Your task to perform on an android device: change your default location settings in chrome Image 0: 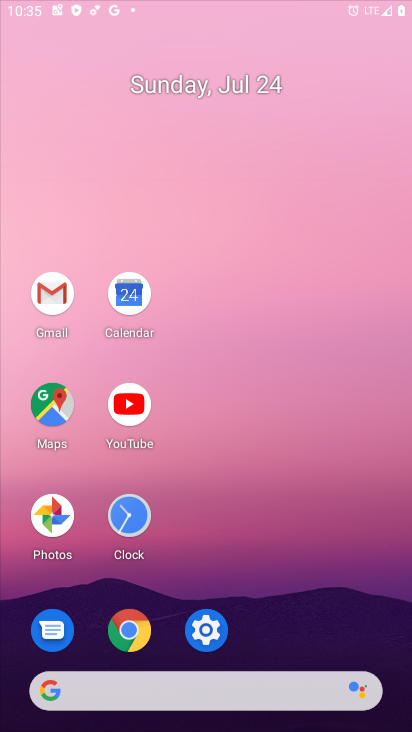
Step 0: click (204, 636)
Your task to perform on an android device: change your default location settings in chrome Image 1: 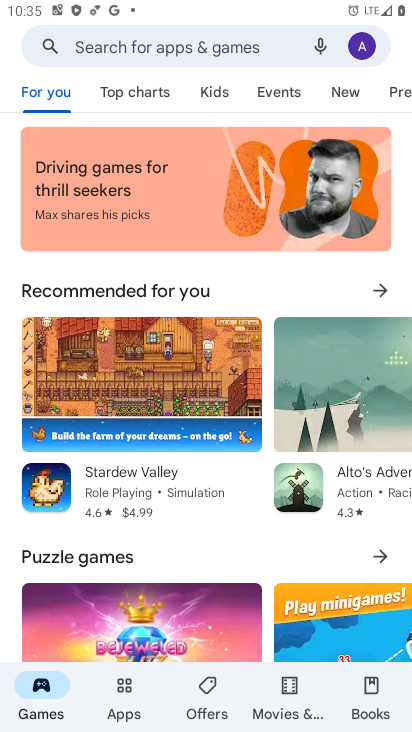
Step 1: press home button
Your task to perform on an android device: change your default location settings in chrome Image 2: 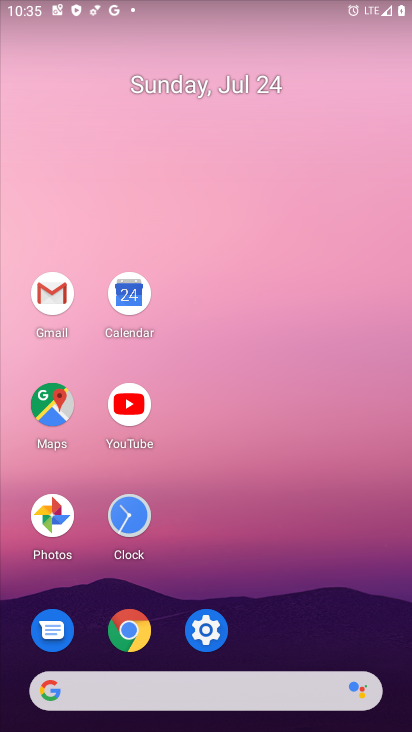
Step 2: click (126, 631)
Your task to perform on an android device: change your default location settings in chrome Image 3: 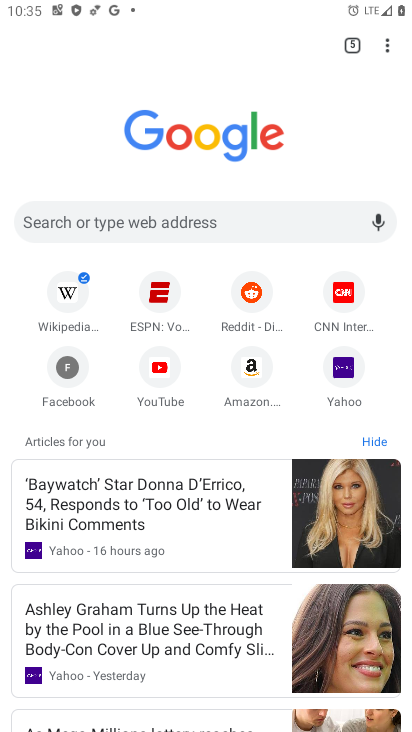
Step 3: click (385, 42)
Your task to perform on an android device: change your default location settings in chrome Image 4: 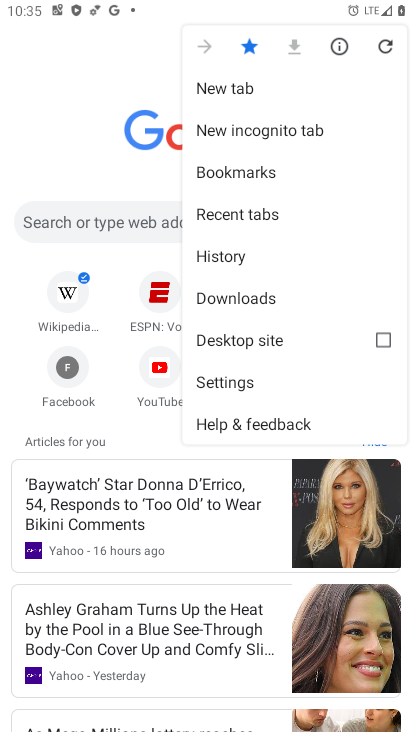
Step 4: click (223, 379)
Your task to perform on an android device: change your default location settings in chrome Image 5: 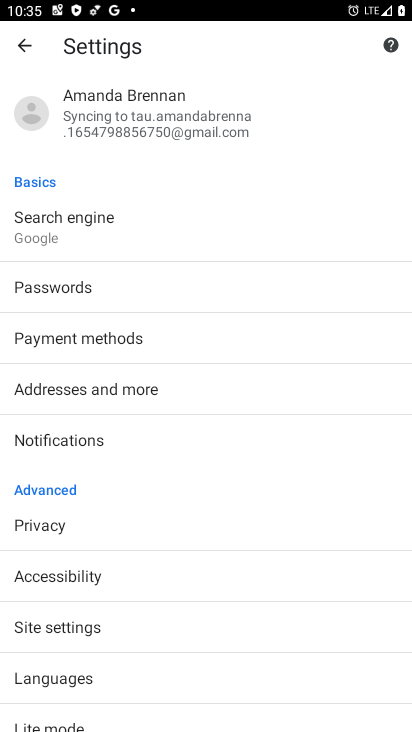
Step 5: click (63, 623)
Your task to perform on an android device: change your default location settings in chrome Image 6: 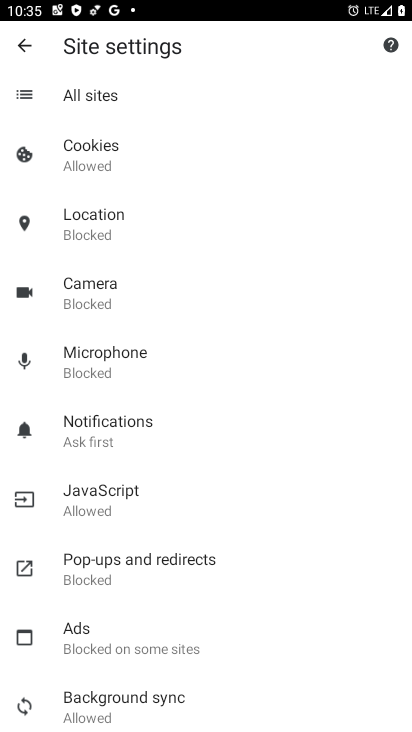
Step 6: click (81, 218)
Your task to perform on an android device: change your default location settings in chrome Image 7: 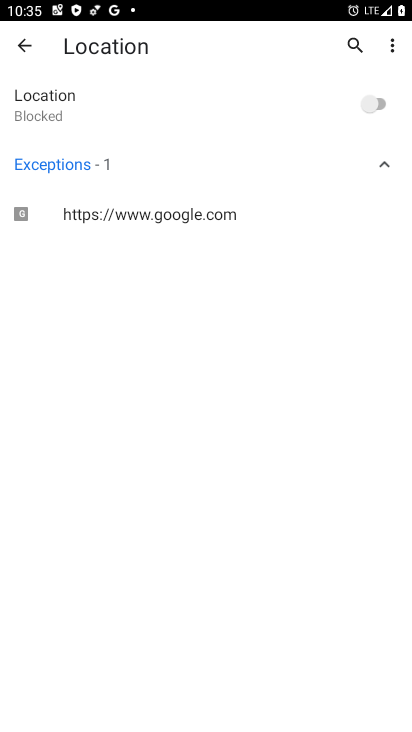
Step 7: click (373, 105)
Your task to perform on an android device: change your default location settings in chrome Image 8: 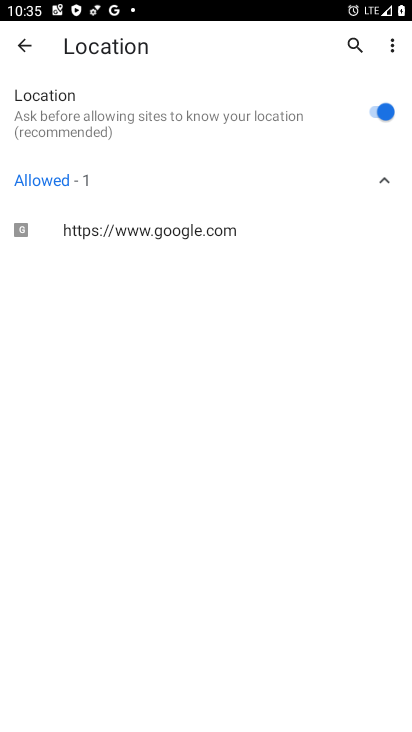
Step 8: task complete